Your task to perform on an android device: turn pop-ups on in chrome Image 0: 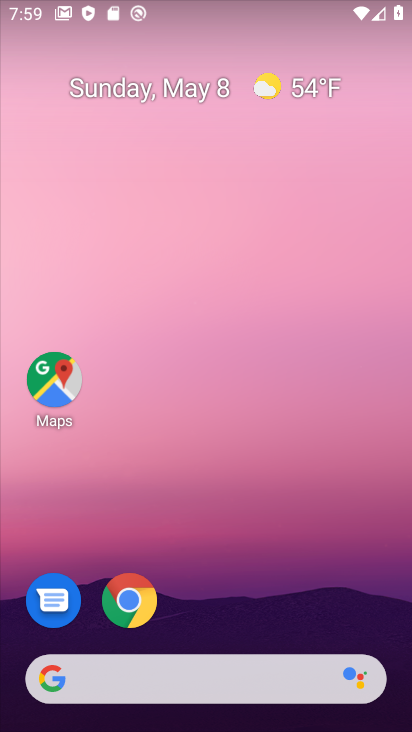
Step 0: click (133, 600)
Your task to perform on an android device: turn pop-ups on in chrome Image 1: 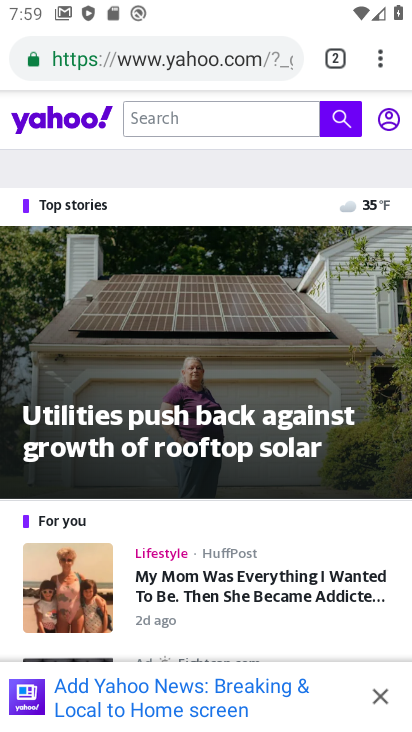
Step 1: click (367, 44)
Your task to perform on an android device: turn pop-ups on in chrome Image 2: 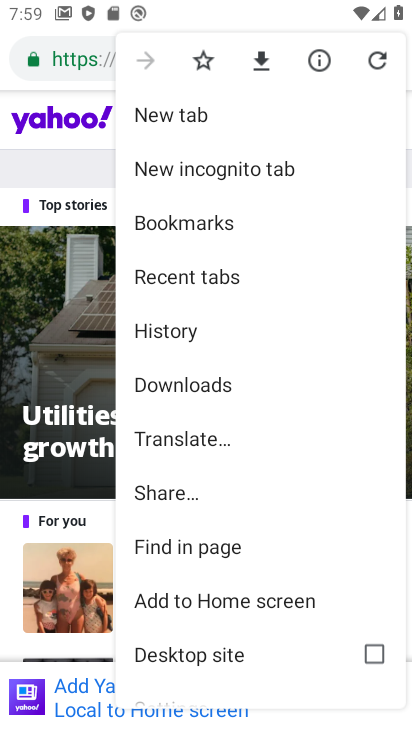
Step 2: drag from (194, 579) to (258, 72)
Your task to perform on an android device: turn pop-ups on in chrome Image 3: 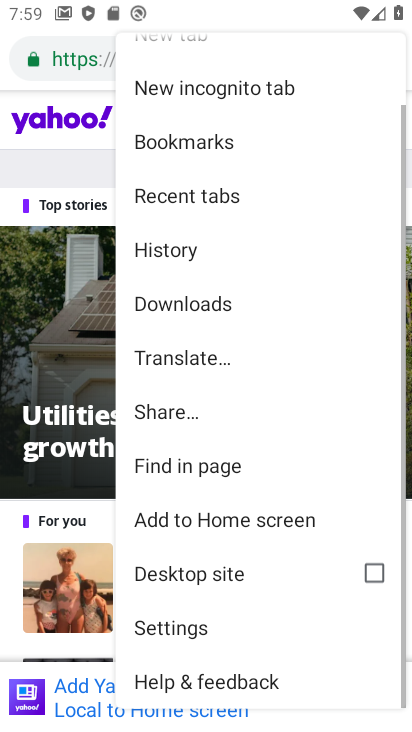
Step 3: click (197, 632)
Your task to perform on an android device: turn pop-ups on in chrome Image 4: 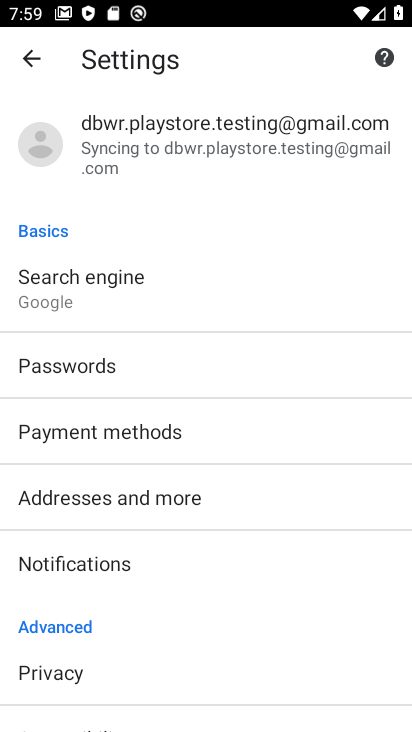
Step 4: drag from (197, 632) to (235, 226)
Your task to perform on an android device: turn pop-ups on in chrome Image 5: 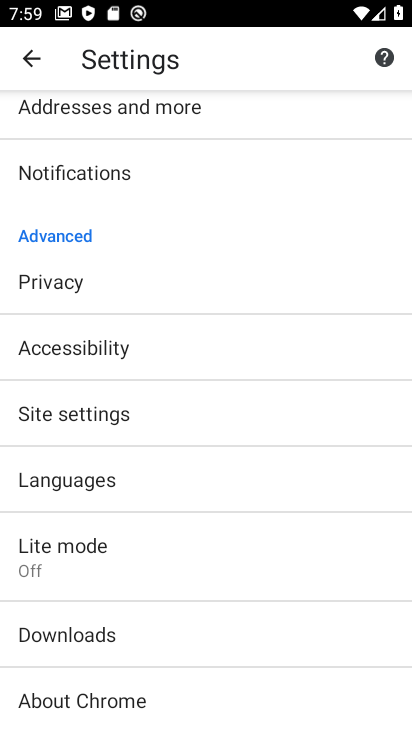
Step 5: drag from (69, 643) to (97, 326)
Your task to perform on an android device: turn pop-ups on in chrome Image 6: 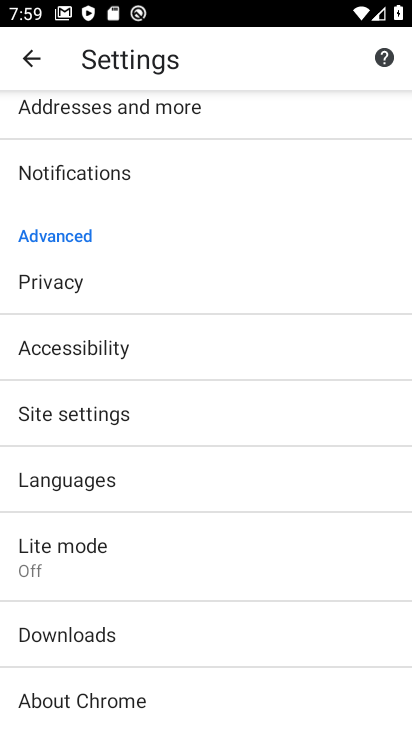
Step 6: click (190, 414)
Your task to perform on an android device: turn pop-ups on in chrome Image 7: 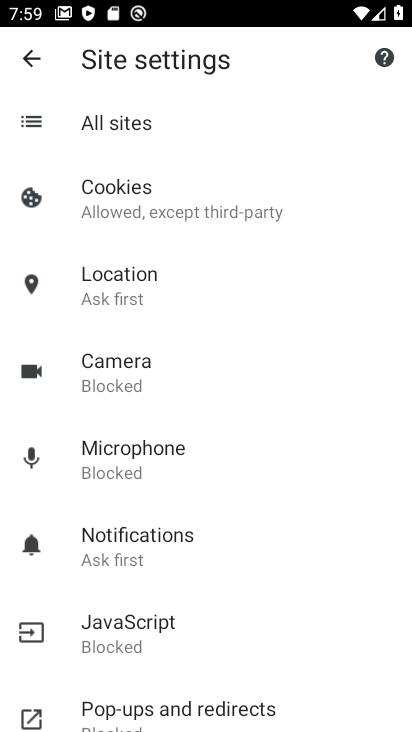
Step 7: drag from (194, 630) to (298, 221)
Your task to perform on an android device: turn pop-ups on in chrome Image 8: 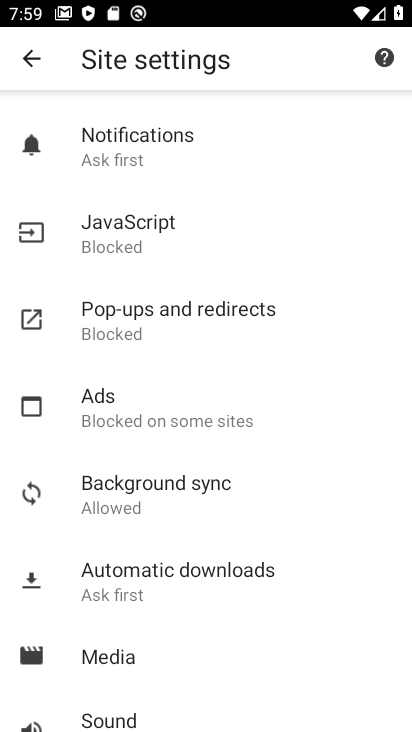
Step 8: click (221, 329)
Your task to perform on an android device: turn pop-ups on in chrome Image 9: 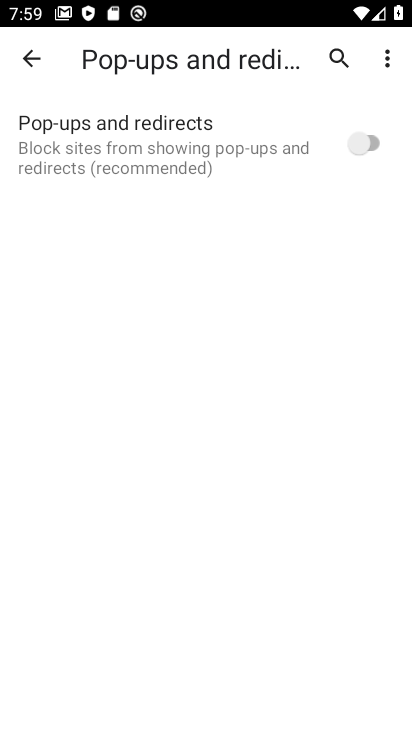
Step 9: click (373, 146)
Your task to perform on an android device: turn pop-ups on in chrome Image 10: 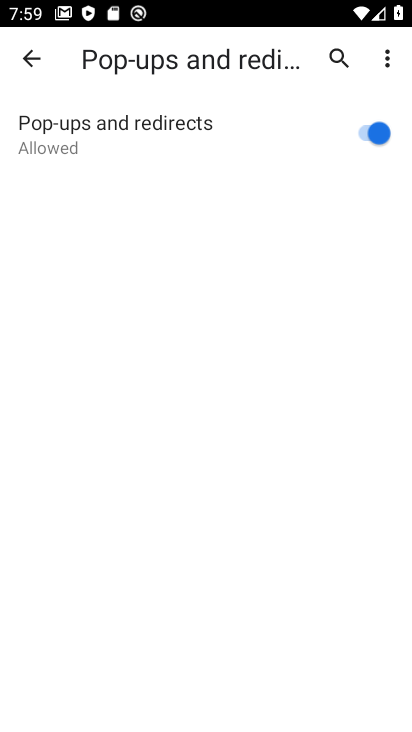
Step 10: task complete